Your task to perform on an android device: open a new tab in the chrome app Image 0: 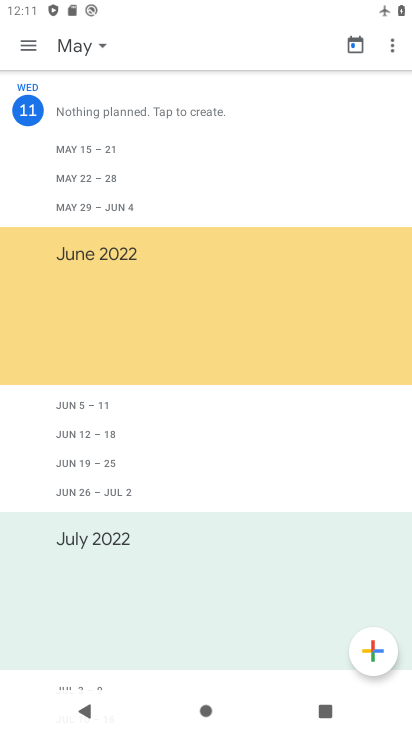
Step 0: press home button
Your task to perform on an android device: open a new tab in the chrome app Image 1: 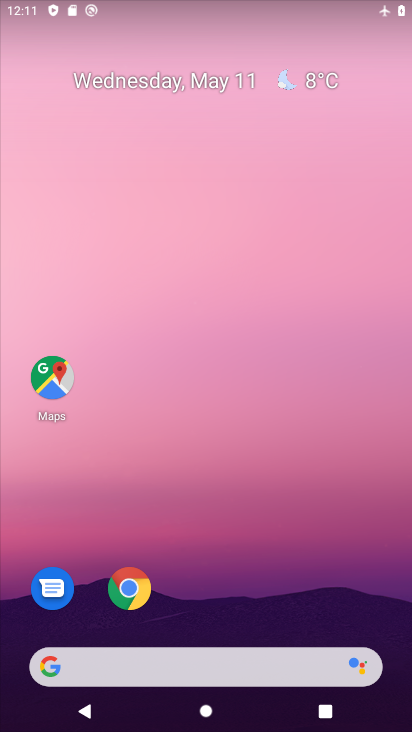
Step 1: click (132, 586)
Your task to perform on an android device: open a new tab in the chrome app Image 2: 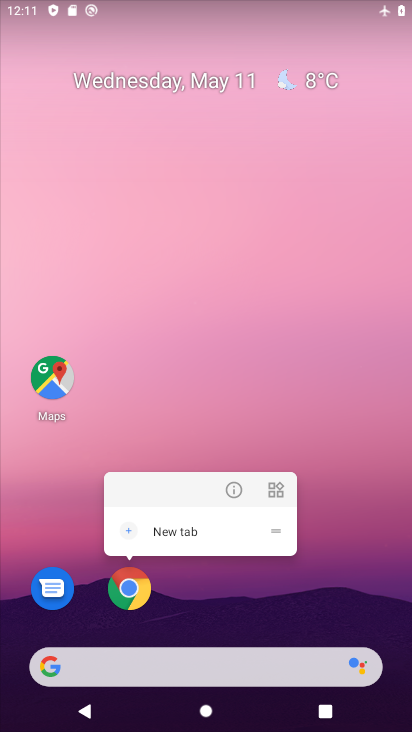
Step 2: click (139, 594)
Your task to perform on an android device: open a new tab in the chrome app Image 3: 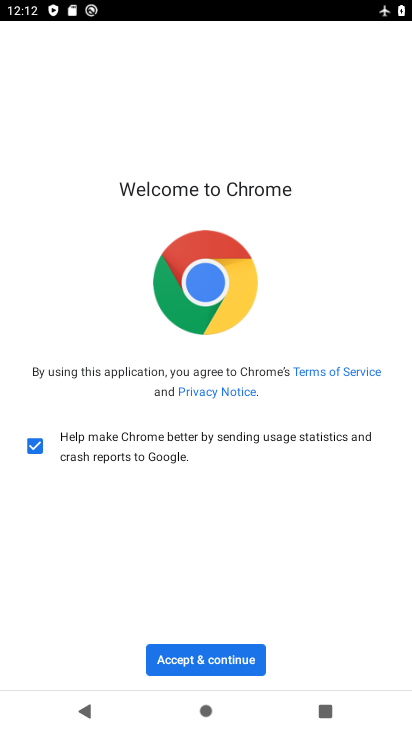
Step 3: click (223, 653)
Your task to perform on an android device: open a new tab in the chrome app Image 4: 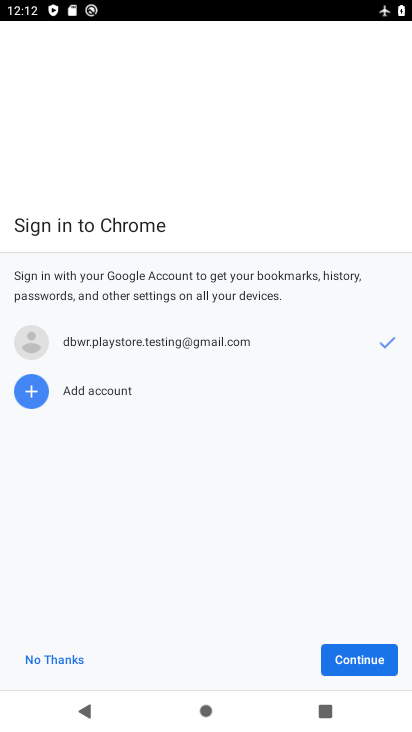
Step 4: click (347, 660)
Your task to perform on an android device: open a new tab in the chrome app Image 5: 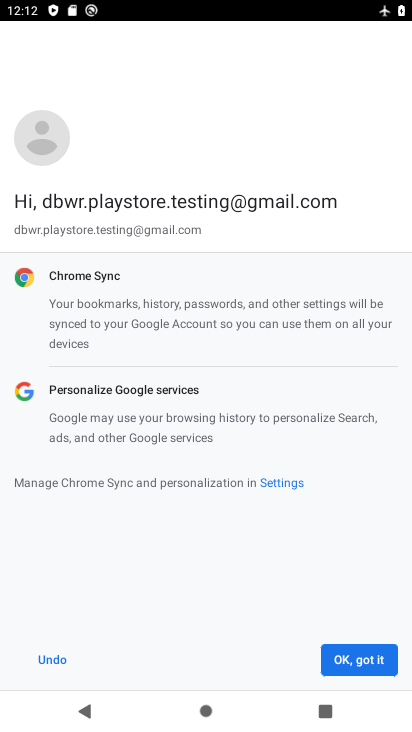
Step 5: click (370, 660)
Your task to perform on an android device: open a new tab in the chrome app Image 6: 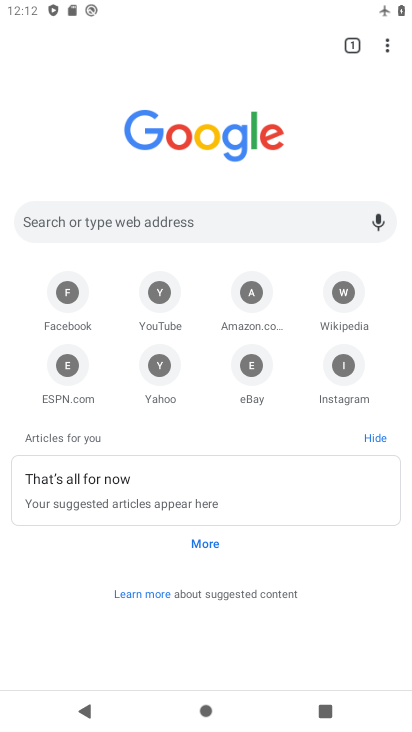
Step 6: task complete